Your task to perform on an android device: Open calendar and show me the second week of next month Image 0: 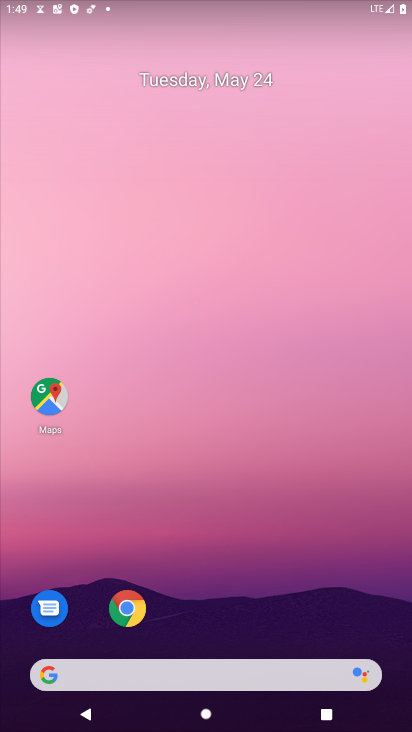
Step 0: drag from (305, 627) to (254, 293)
Your task to perform on an android device: Open calendar and show me the second week of next month Image 1: 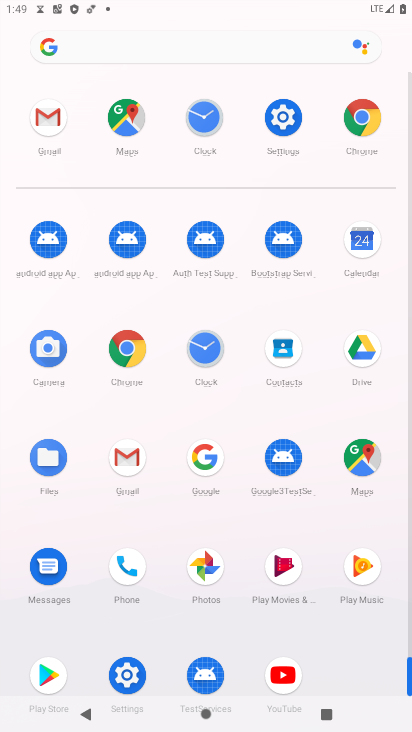
Step 1: click (369, 241)
Your task to perform on an android device: Open calendar and show me the second week of next month Image 2: 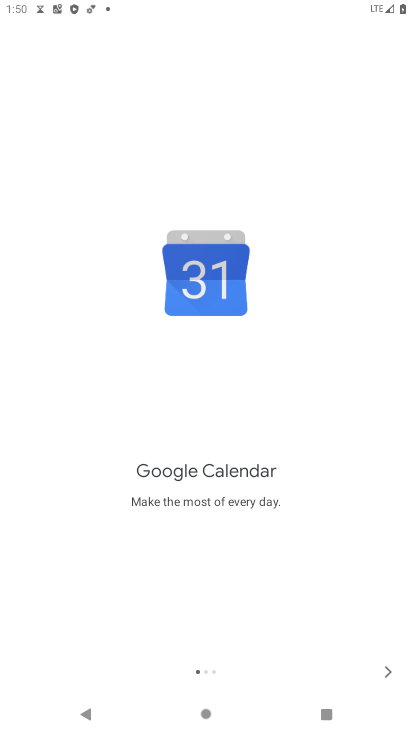
Step 2: click (385, 665)
Your task to perform on an android device: Open calendar and show me the second week of next month Image 3: 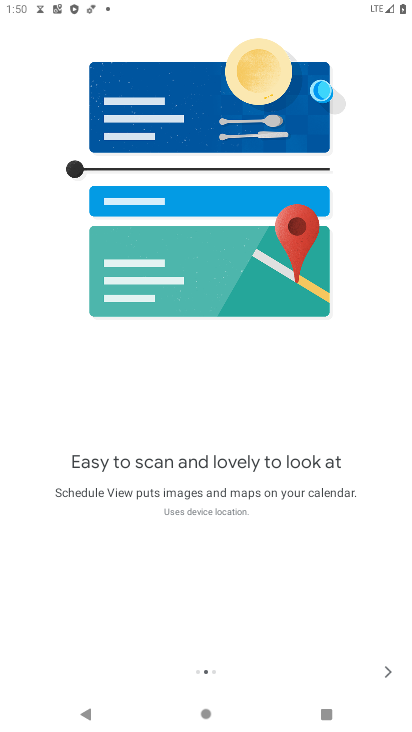
Step 3: click (387, 672)
Your task to perform on an android device: Open calendar and show me the second week of next month Image 4: 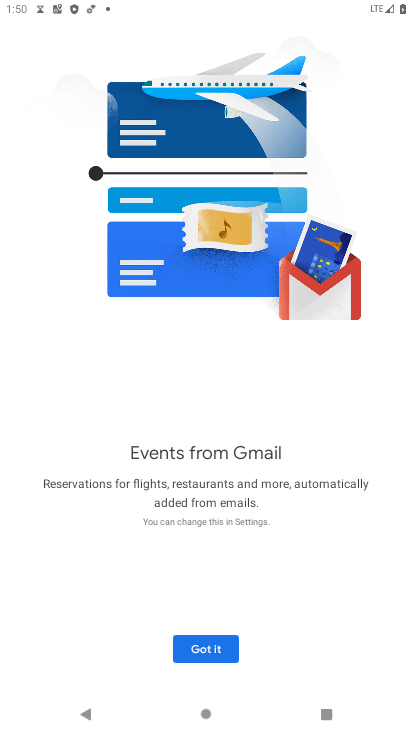
Step 4: click (208, 648)
Your task to perform on an android device: Open calendar and show me the second week of next month Image 5: 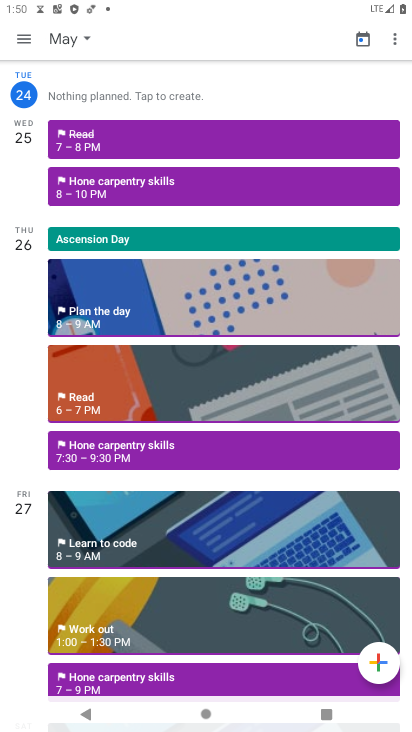
Step 5: click (83, 39)
Your task to perform on an android device: Open calendar and show me the second week of next month Image 6: 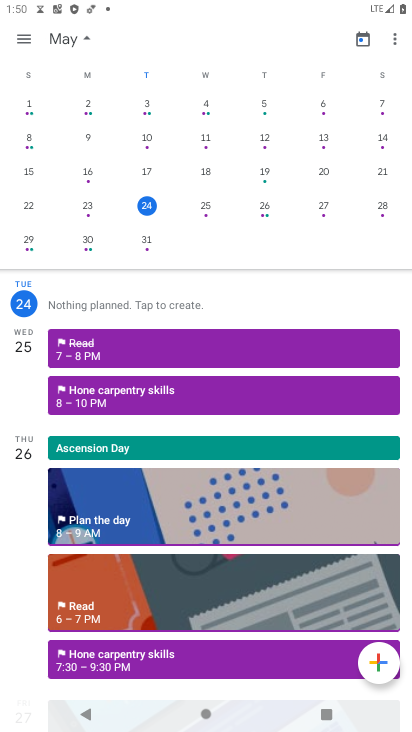
Step 6: drag from (402, 173) to (2, 113)
Your task to perform on an android device: Open calendar and show me the second week of next month Image 7: 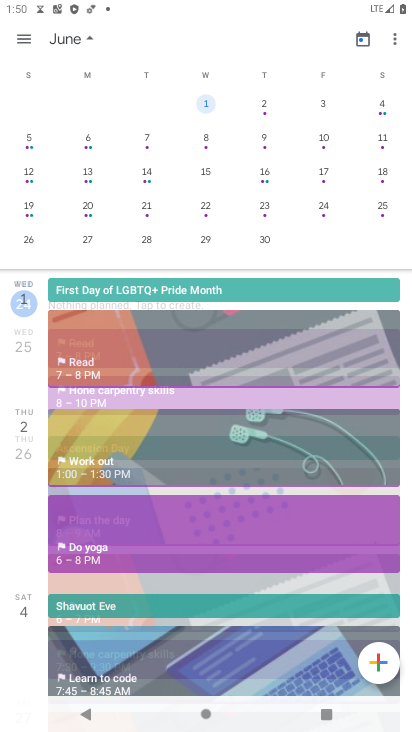
Step 7: click (27, 37)
Your task to perform on an android device: Open calendar and show me the second week of next month Image 8: 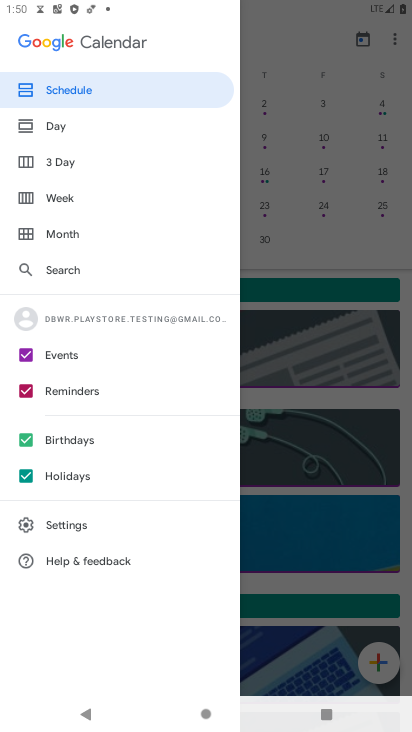
Step 8: click (51, 196)
Your task to perform on an android device: Open calendar and show me the second week of next month Image 9: 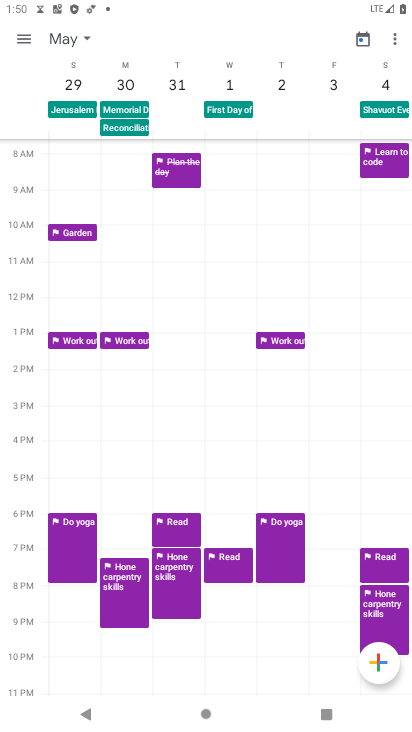
Step 9: click (83, 43)
Your task to perform on an android device: Open calendar and show me the second week of next month Image 10: 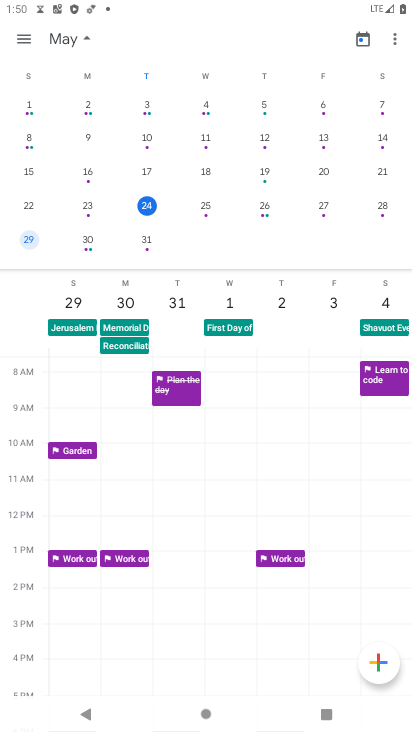
Step 10: drag from (397, 173) to (30, 176)
Your task to perform on an android device: Open calendar and show me the second week of next month Image 11: 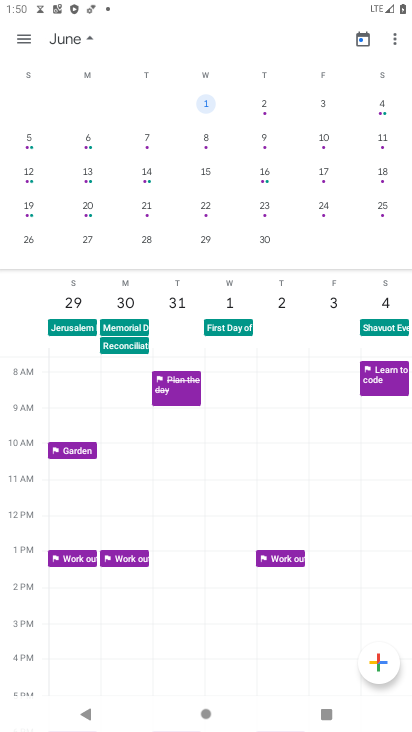
Step 11: click (211, 139)
Your task to perform on an android device: Open calendar and show me the second week of next month Image 12: 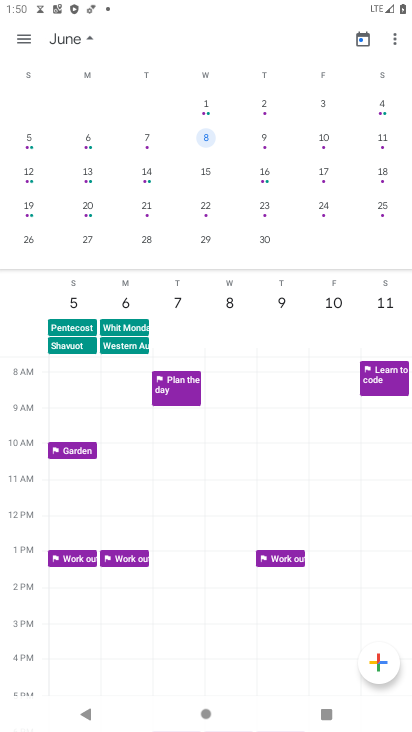
Step 12: task complete